Your task to perform on an android device: check android version Image 0: 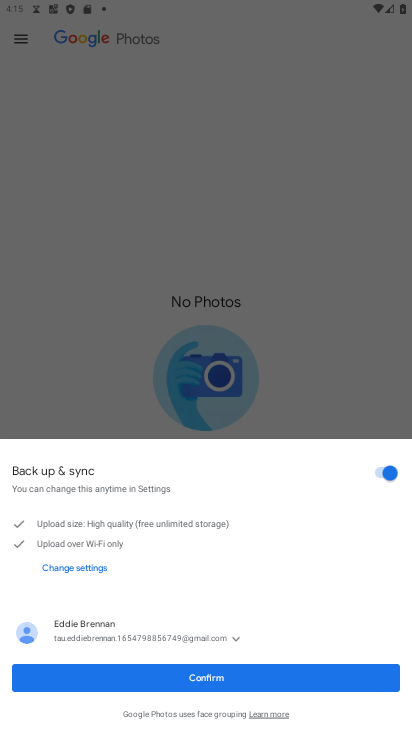
Step 0: press home button
Your task to perform on an android device: check android version Image 1: 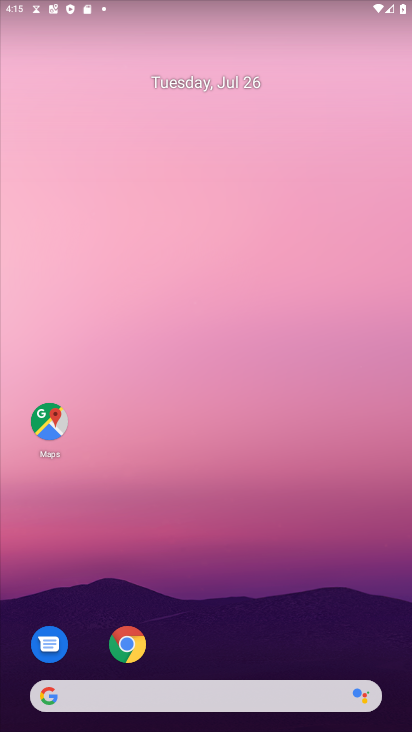
Step 1: drag from (280, 648) to (203, 151)
Your task to perform on an android device: check android version Image 2: 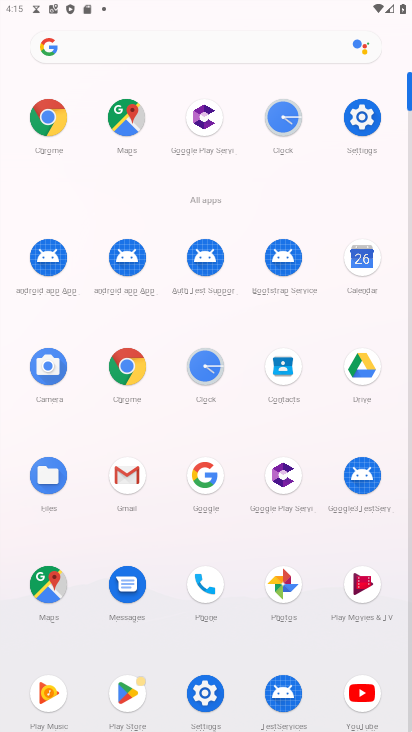
Step 2: click (366, 132)
Your task to perform on an android device: check android version Image 3: 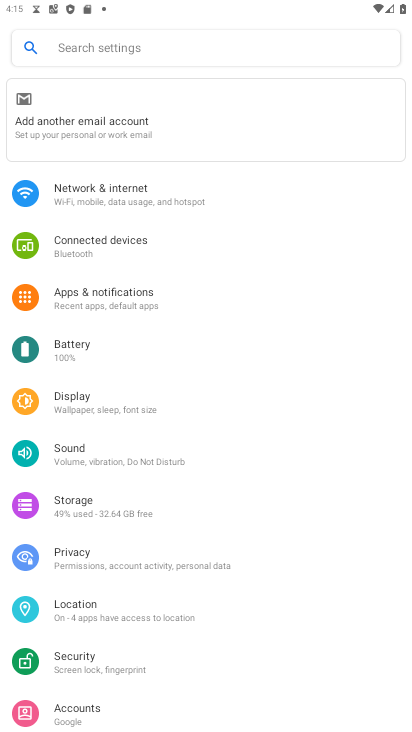
Step 3: drag from (244, 670) to (187, 289)
Your task to perform on an android device: check android version Image 4: 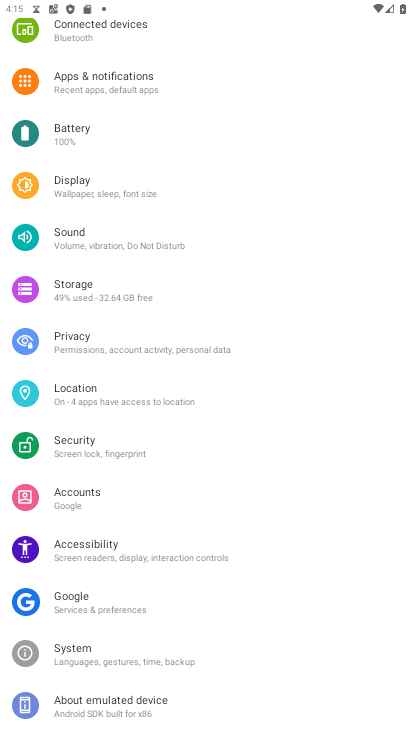
Step 4: click (143, 703)
Your task to perform on an android device: check android version Image 5: 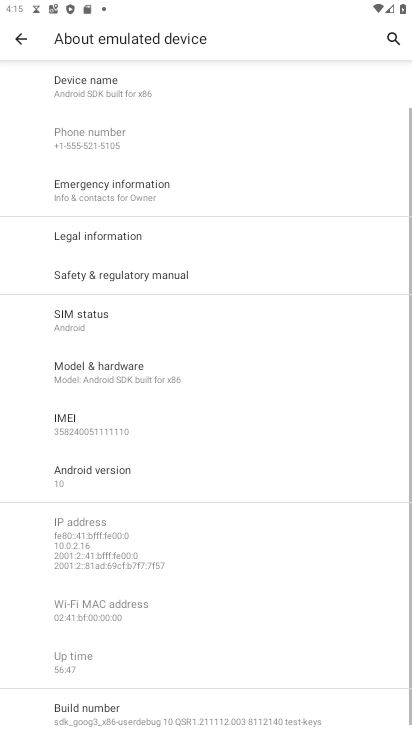
Step 5: click (221, 479)
Your task to perform on an android device: check android version Image 6: 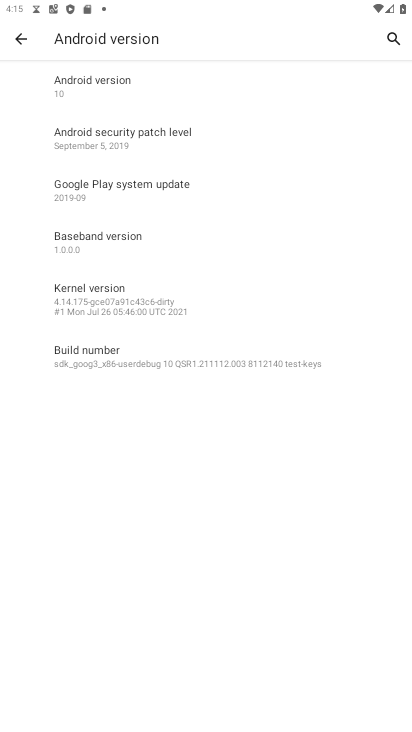
Step 6: task complete